Your task to perform on an android device: Go to settings Image 0: 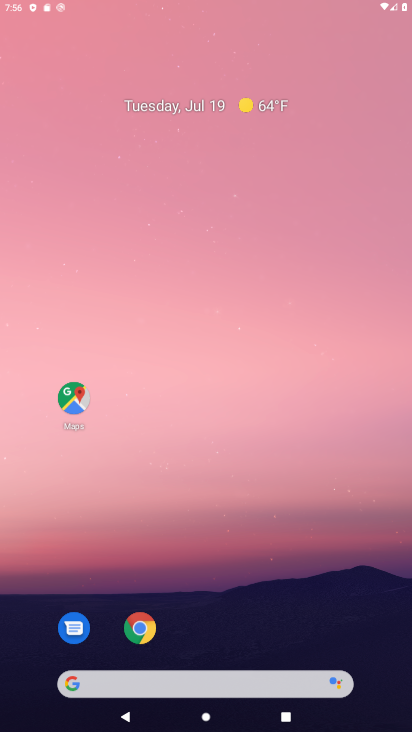
Step 0: click (305, 132)
Your task to perform on an android device: Go to settings Image 1: 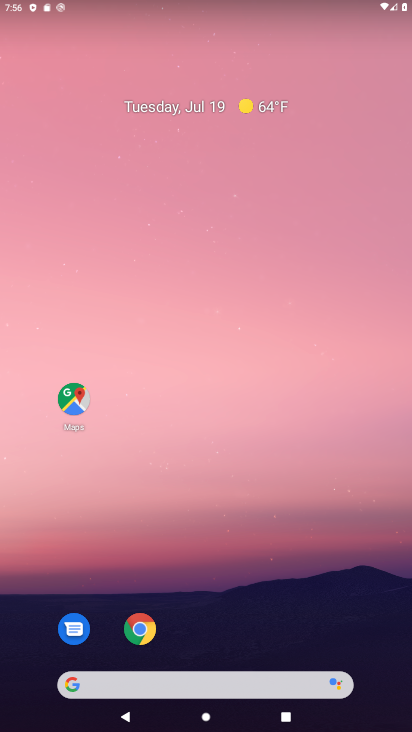
Step 1: drag from (224, 664) to (295, 64)
Your task to perform on an android device: Go to settings Image 2: 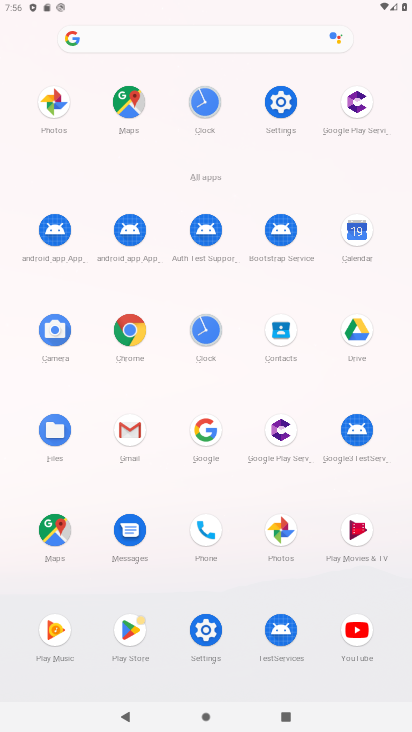
Step 2: click (195, 638)
Your task to perform on an android device: Go to settings Image 3: 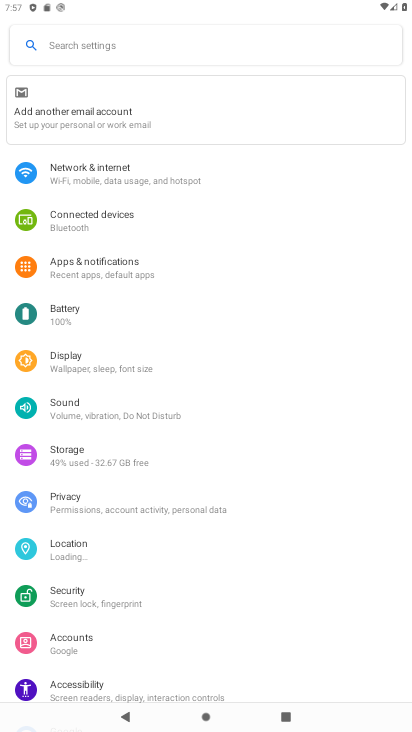
Step 3: task complete